Your task to perform on an android device: Go to wifi settings Image 0: 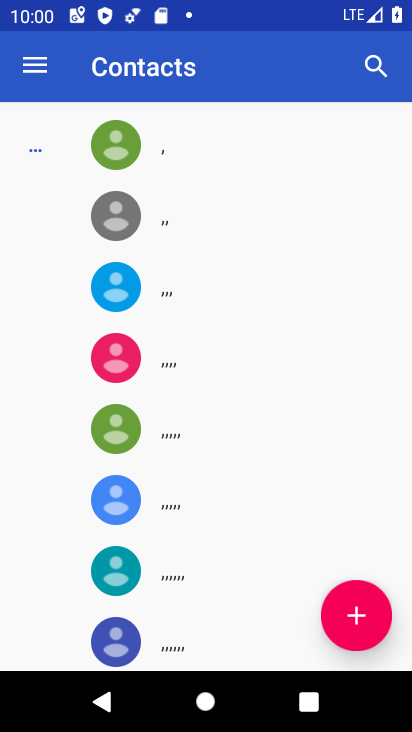
Step 0: press home button
Your task to perform on an android device: Go to wifi settings Image 1: 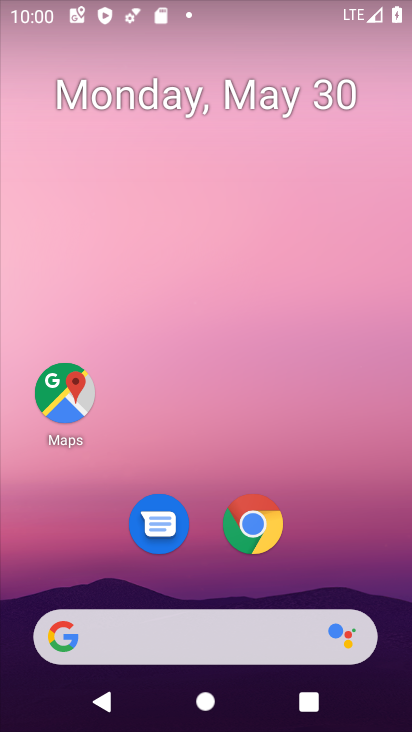
Step 1: drag from (325, 506) to (327, 35)
Your task to perform on an android device: Go to wifi settings Image 2: 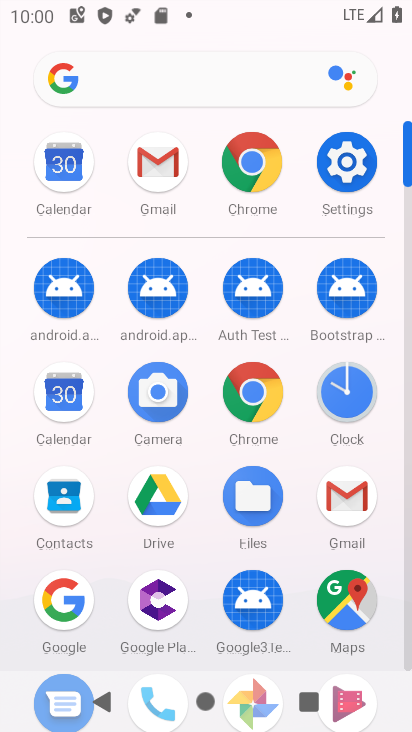
Step 2: click (344, 160)
Your task to perform on an android device: Go to wifi settings Image 3: 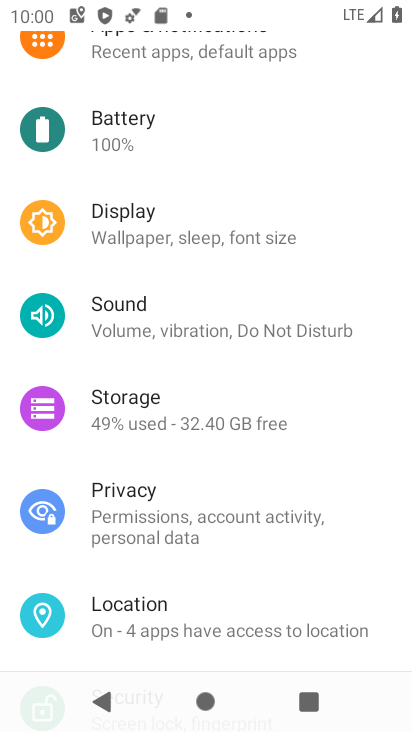
Step 3: drag from (264, 192) to (271, 605)
Your task to perform on an android device: Go to wifi settings Image 4: 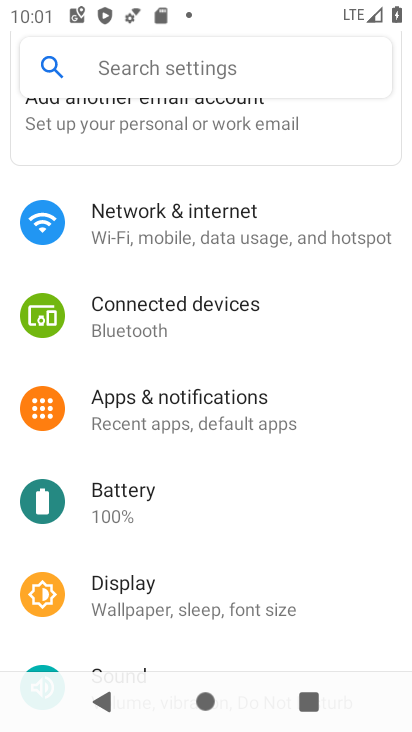
Step 4: click (238, 236)
Your task to perform on an android device: Go to wifi settings Image 5: 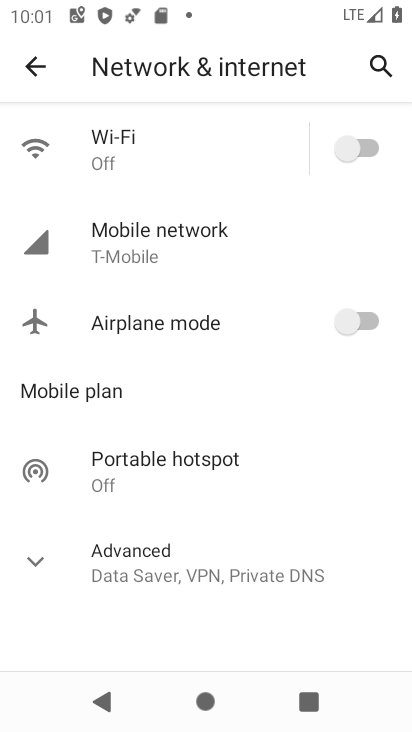
Step 5: task complete